Your task to perform on an android device: Search for Mexican restaurants on Maps Image 0: 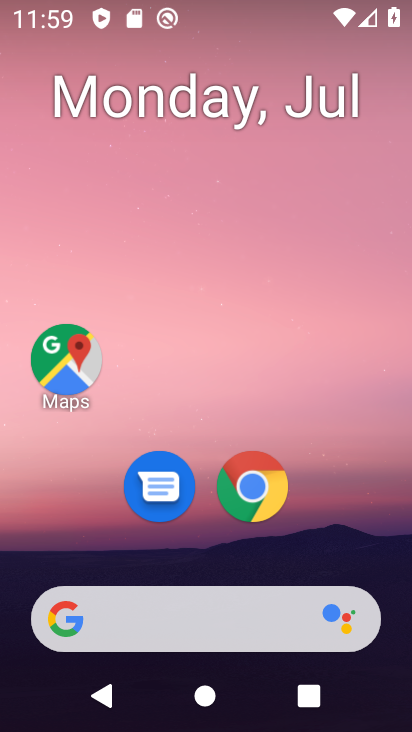
Step 0: drag from (365, 531) to (407, 114)
Your task to perform on an android device: Search for Mexican restaurants on Maps Image 1: 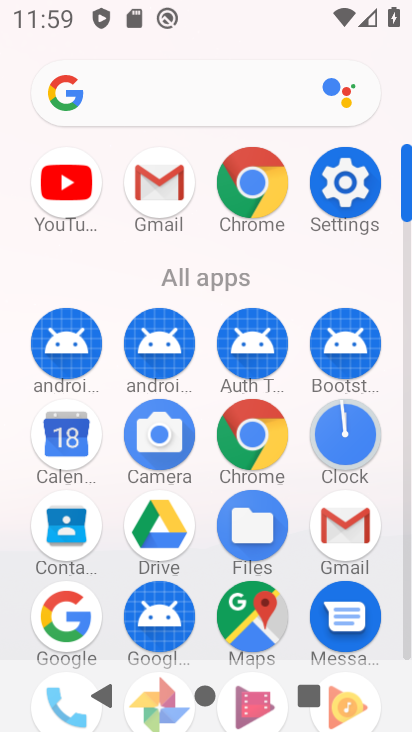
Step 1: click (253, 609)
Your task to perform on an android device: Search for Mexican restaurants on Maps Image 2: 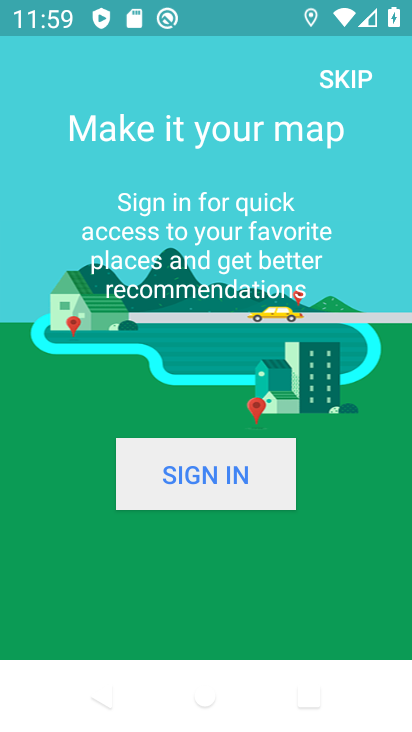
Step 2: click (345, 76)
Your task to perform on an android device: Search for Mexican restaurants on Maps Image 3: 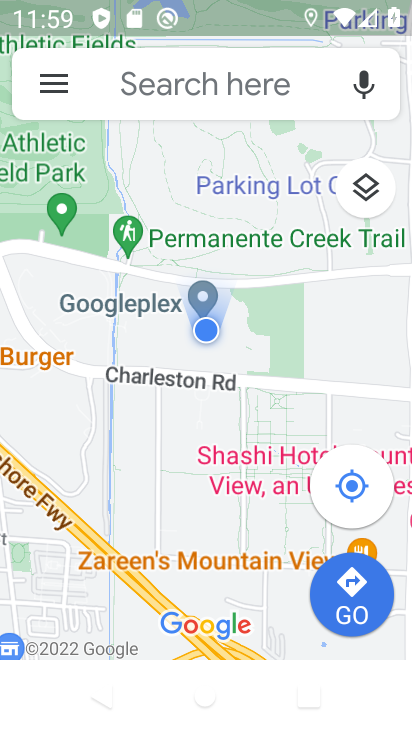
Step 3: click (264, 97)
Your task to perform on an android device: Search for Mexican restaurants on Maps Image 4: 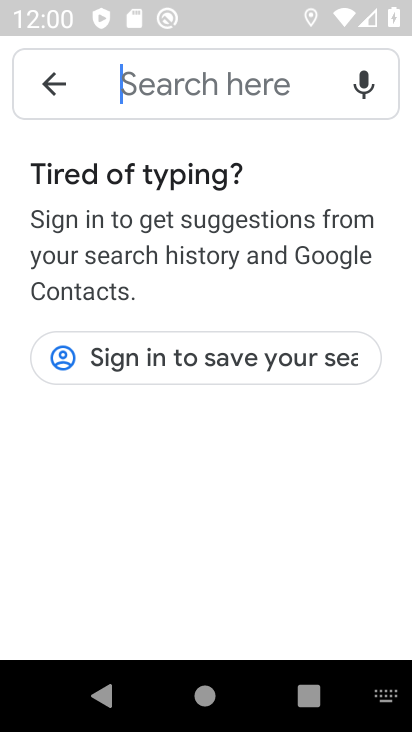
Step 4: type "mexcian"
Your task to perform on an android device: Search for Mexican restaurants on Maps Image 5: 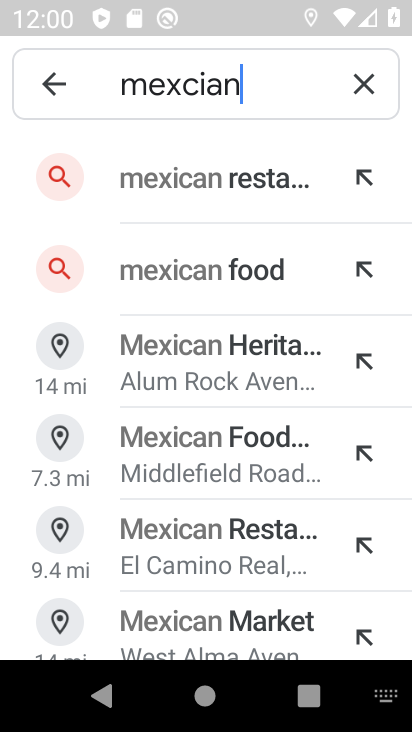
Step 5: click (265, 197)
Your task to perform on an android device: Search for Mexican restaurants on Maps Image 6: 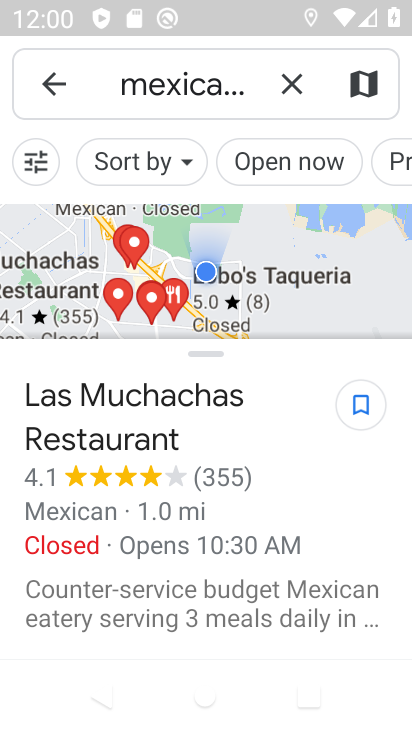
Step 6: task complete